Your task to perform on an android device: open a bookmark in the chrome app Image 0: 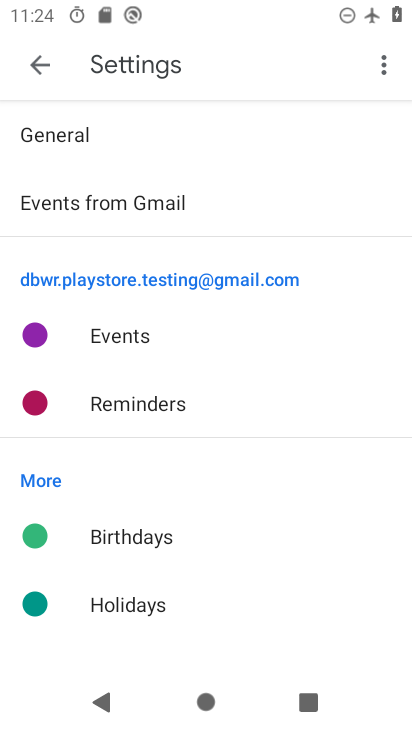
Step 0: press home button
Your task to perform on an android device: open a bookmark in the chrome app Image 1: 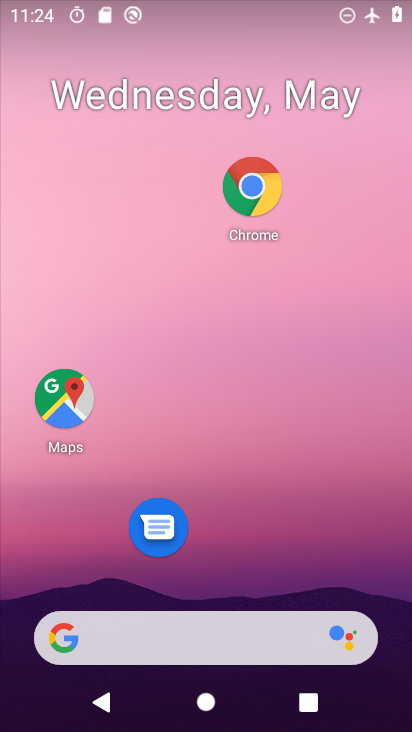
Step 1: drag from (221, 619) to (253, 117)
Your task to perform on an android device: open a bookmark in the chrome app Image 2: 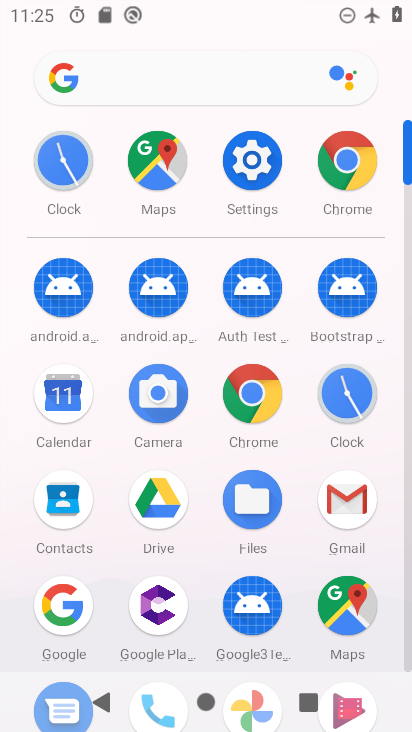
Step 2: click (347, 167)
Your task to perform on an android device: open a bookmark in the chrome app Image 3: 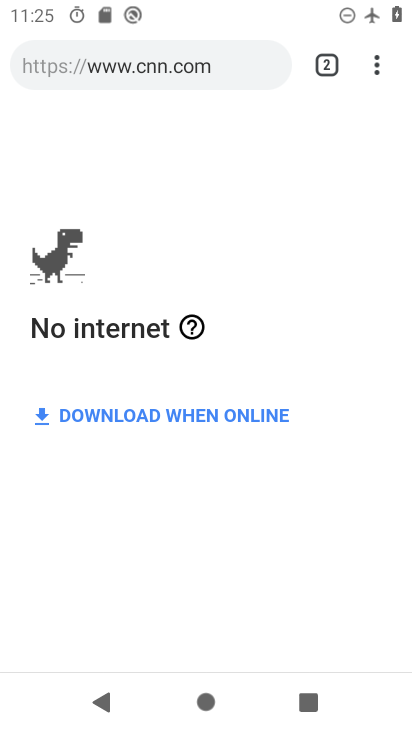
Step 3: press home button
Your task to perform on an android device: open a bookmark in the chrome app Image 4: 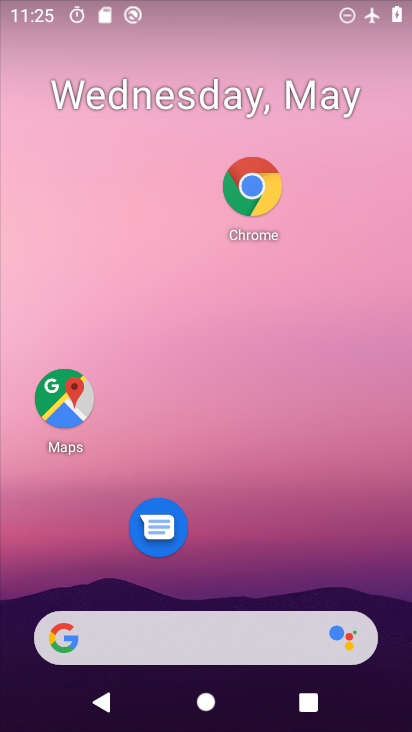
Step 4: drag from (223, 556) to (298, 111)
Your task to perform on an android device: open a bookmark in the chrome app Image 5: 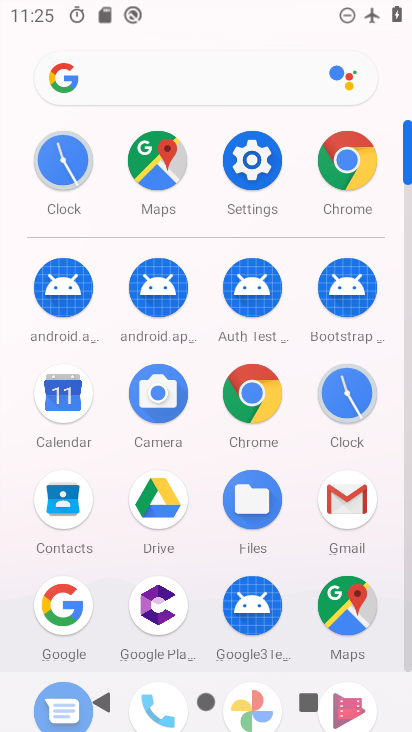
Step 5: click (357, 190)
Your task to perform on an android device: open a bookmark in the chrome app Image 6: 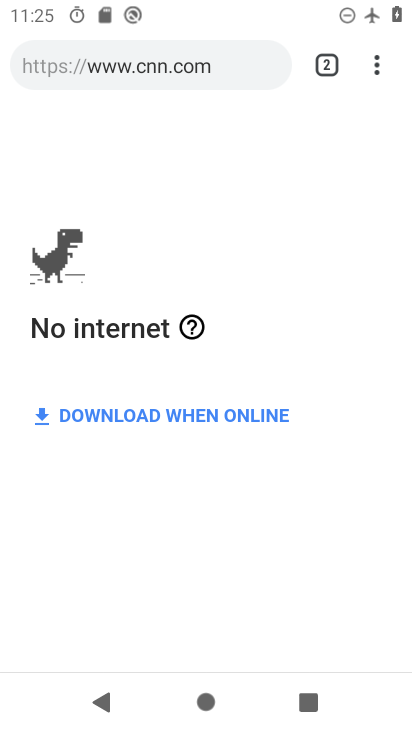
Step 6: click (384, 70)
Your task to perform on an android device: open a bookmark in the chrome app Image 7: 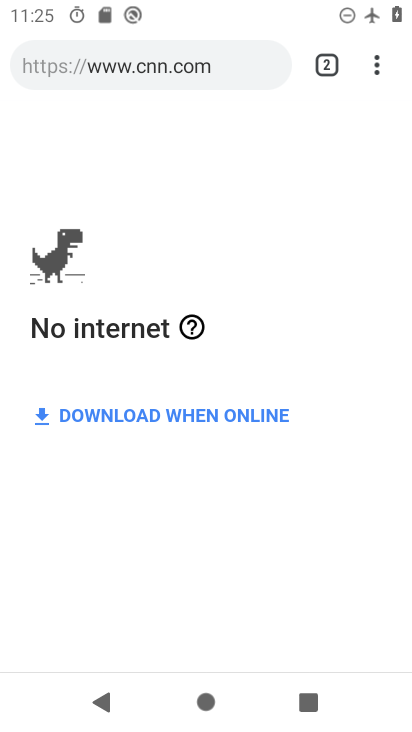
Step 7: click (375, 78)
Your task to perform on an android device: open a bookmark in the chrome app Image 8: 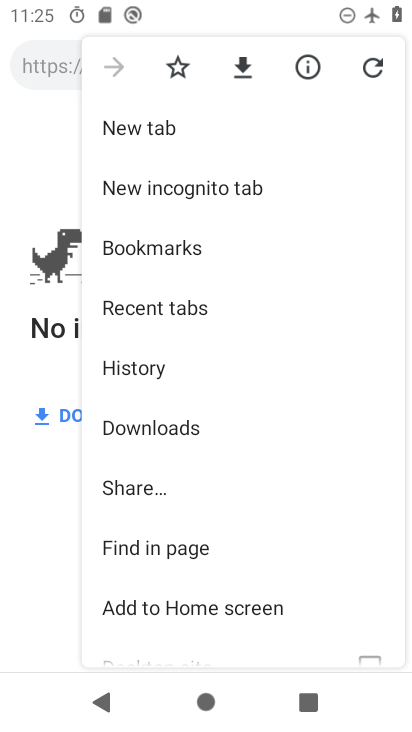
Step 8: drag from (215, 457) to (237, 234)
Your task to perform on an android device: open a bookmark in the chrome app Image 9: 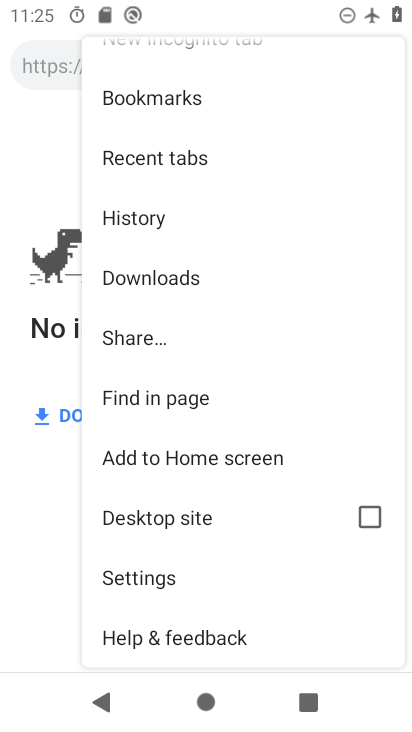
Step 9: click (140, 93)
Your task to perform on an android device: open a bookmark in the chrome app Image 10: 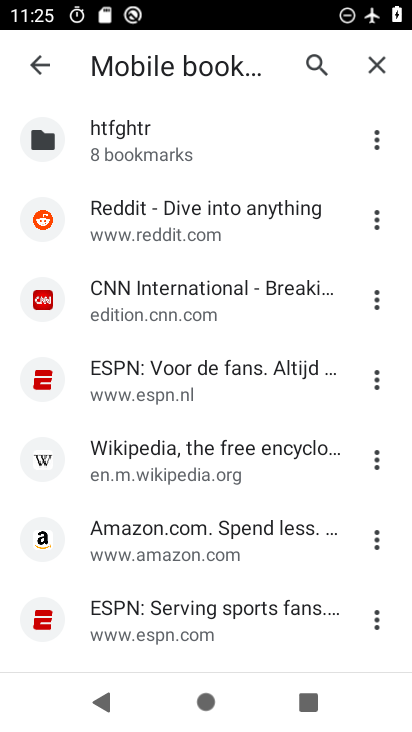
Step 10: click (172, 473)
Your task to perform on an android device: open a bookmark in the chrome app Image 11: 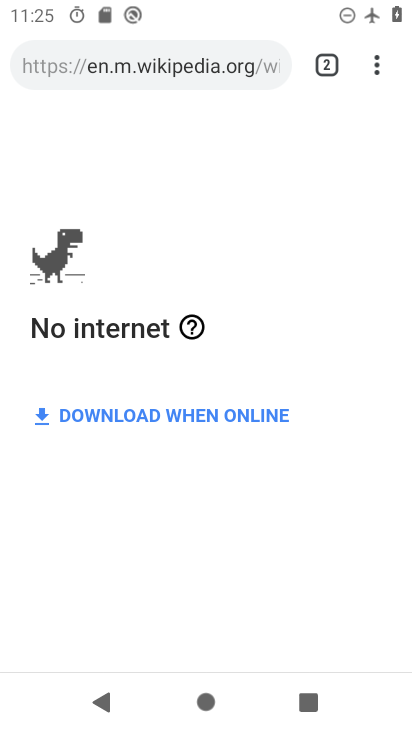
Step 11: task complete